Your task to perform on an android device: Open calendar and show me the first week of next month Image 0: 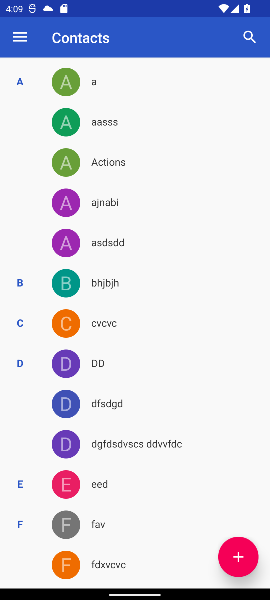
Step 0: press home button
Your task to perform on an android device: Open calendar and show me the first week of next month Image 1: 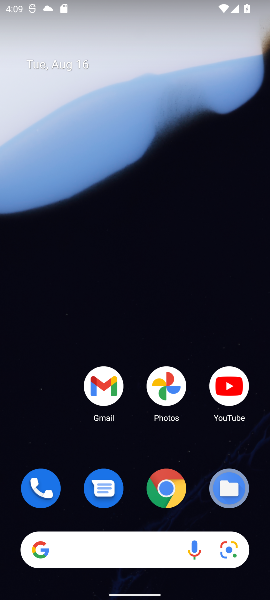
Step 1: drag from (163, 310) to (176, 68)
Your task to perform on an android device: Open calendar and show me the first week of next month Image 2: 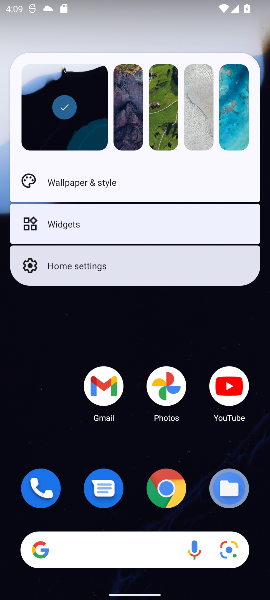
Step 2: click (62, 353)
Your task to perform on an android device: Open calendar and show me the first week of next month Image 3: 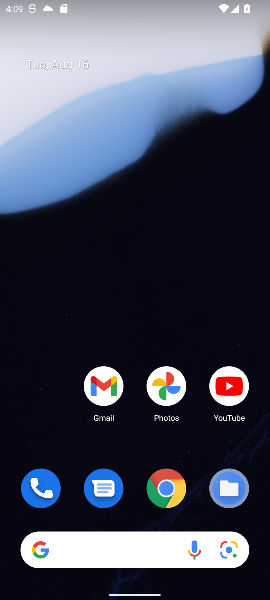
Step 3: task complete